Your task to perform on an android device: Go to privacy settings Image 0: 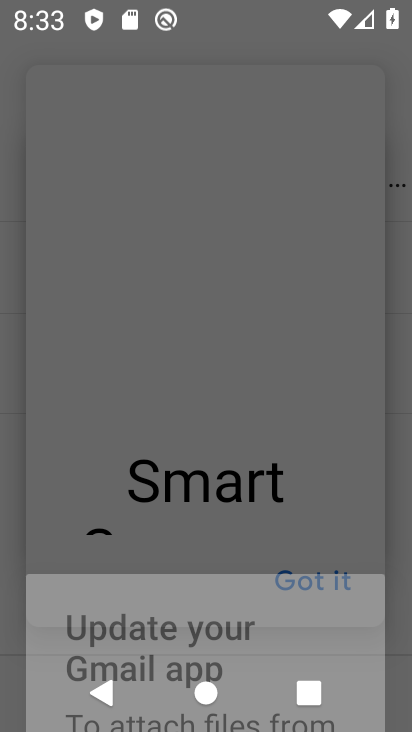
Step 0: press home button
Your task to perform on an android device: Go to privacy settings Image 1: 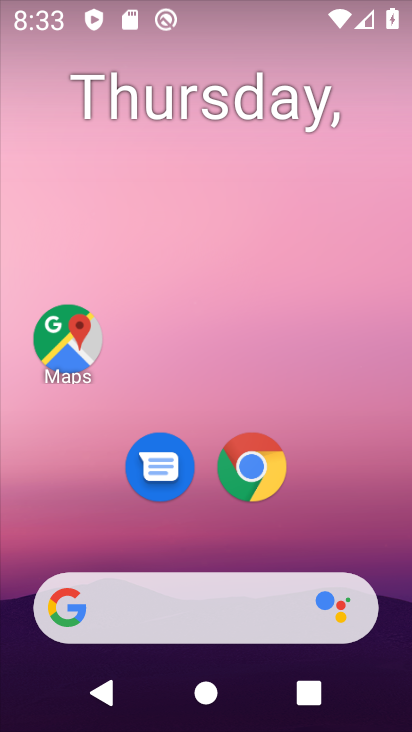
Step 1: drag from (310, 544) to (317, 30)
Your task to perform on an android device: Go to privacy settings Image 2: 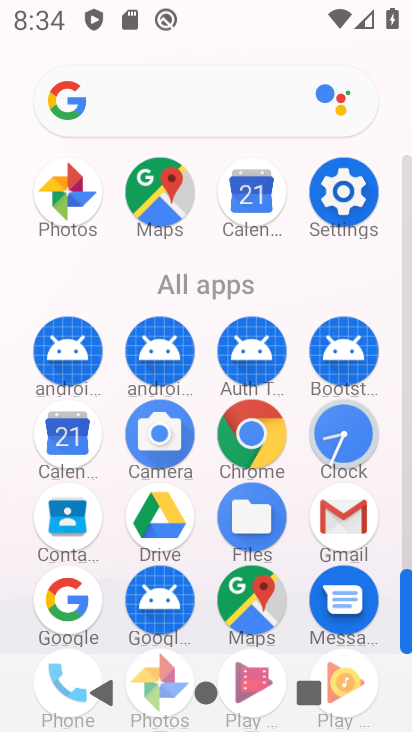
Step 2: click (249, 437)
Your task to perform on an android device: Go to privacy settings Image 3: 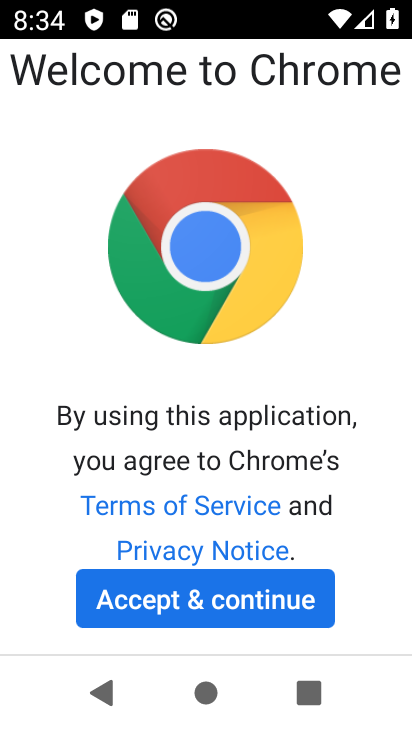
Step 3: click (204, 597)
Your task to perform on an android device: Go to privacy settings Image 4: 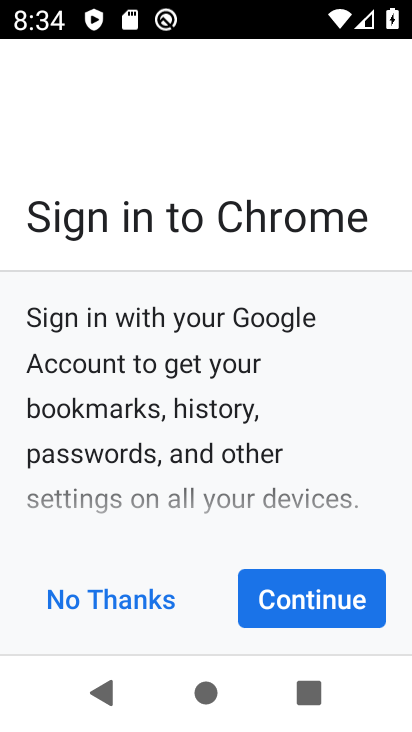
Step 4: click (267, 588)
Your task to perform on an android device: Go to privacy settings Image 5: 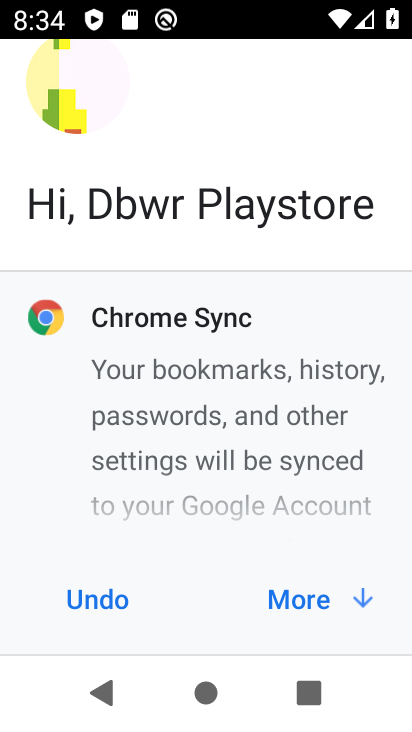
Step 5: click (271, 587)
Your task to perform on an android device: Go to privacy settings Image 6: 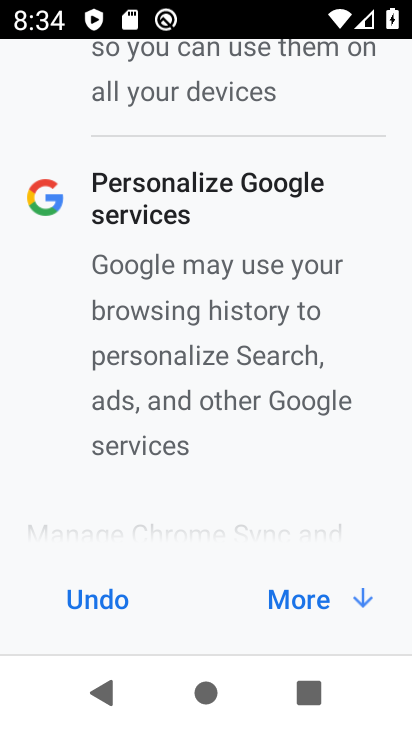
Step 6: click (271, 587)
Your task to perform on an android device: Go to privacy settings Image 7: 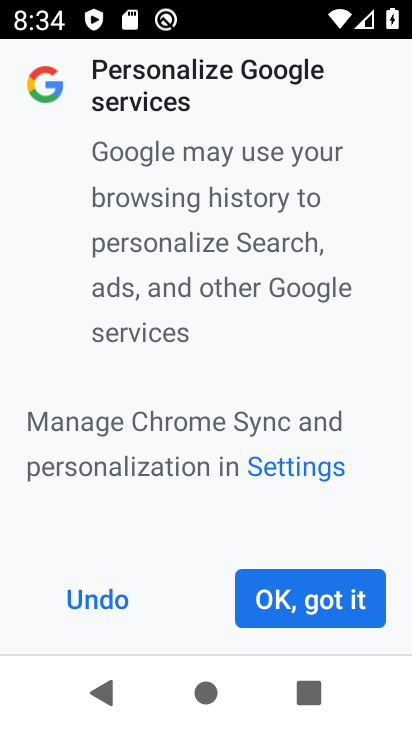
Step 7: click (271, 587)
Your task to perform on an android device: Go to privacy settings Image 8: 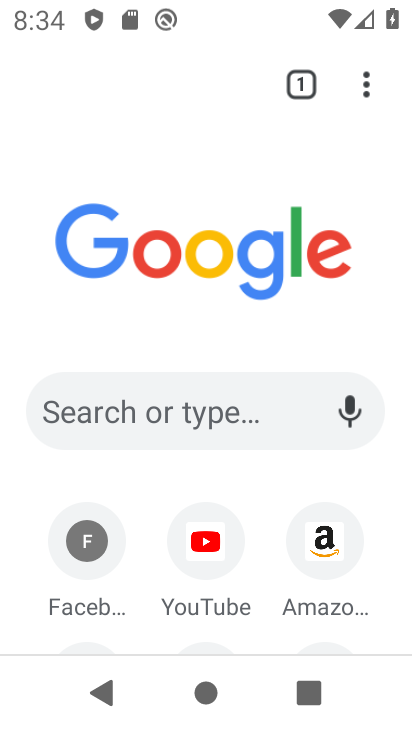
Step 8: click (364, 83)
Your task to perform on an android device: Go to privacy settings Image 9: 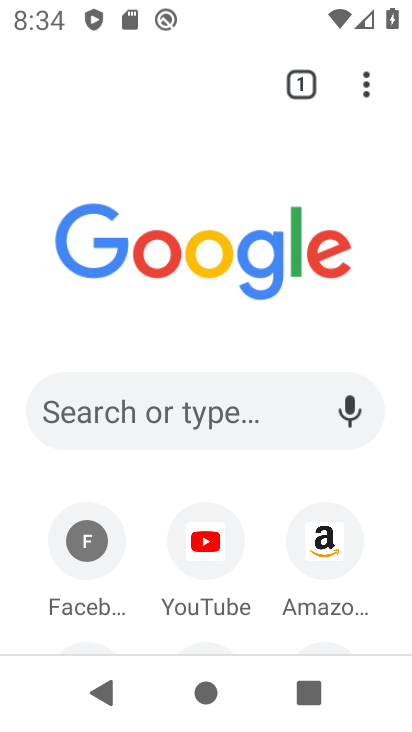
Step 9: click (364, 83)
Your task to perform on an android device: Go to privacy settings Image 10: 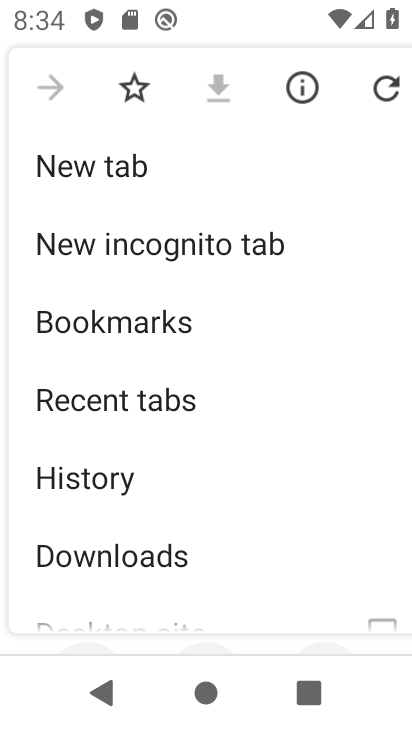
Step 10: drag from (118, 546) to (142, 413)
Your task to perform on an android device: Go to privacy settings Image 11: 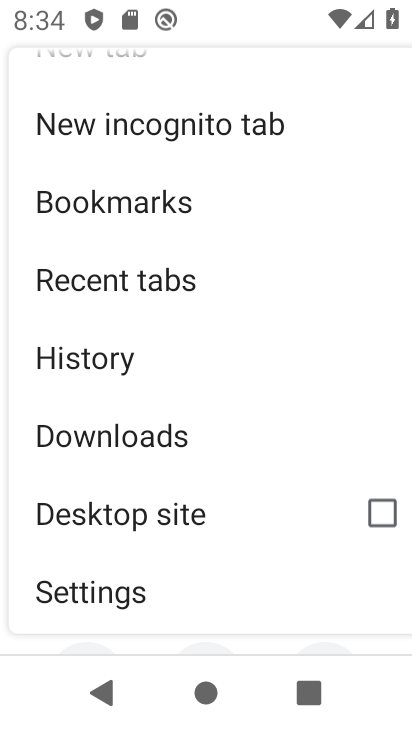
Step 11: click (147, 566)
Your task to perform on an android device: Go to privacy settings Image 12: 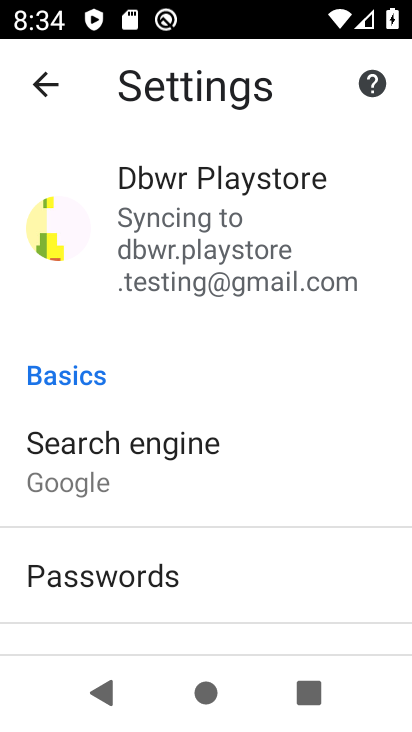
Step 12: drag from (158, 587) to (177, 492)
Your task to perform on an android device: Go to privacy settings Image 13: 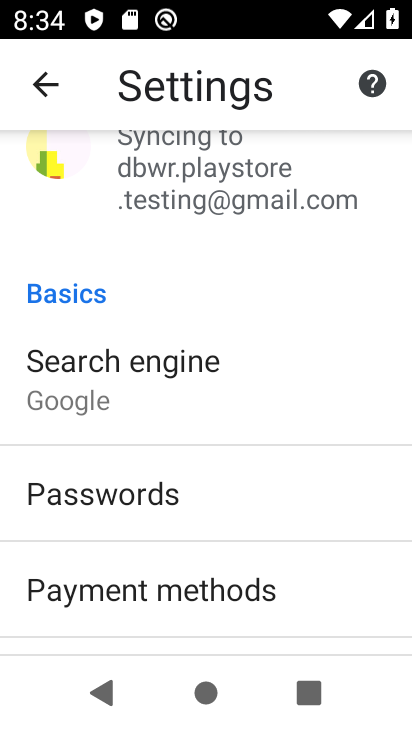
Step 13: drag from (163, 574) to (171, 473)
Your task to perform on an android device: Go to privacy settings Image 14: 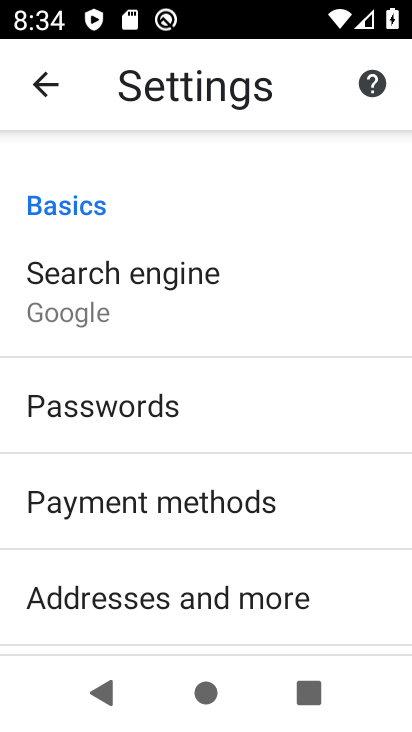
Step 14: drag from (165, 569) to (179, 497)
Your task to perform on an android device: Go to privacy settings Image 15: 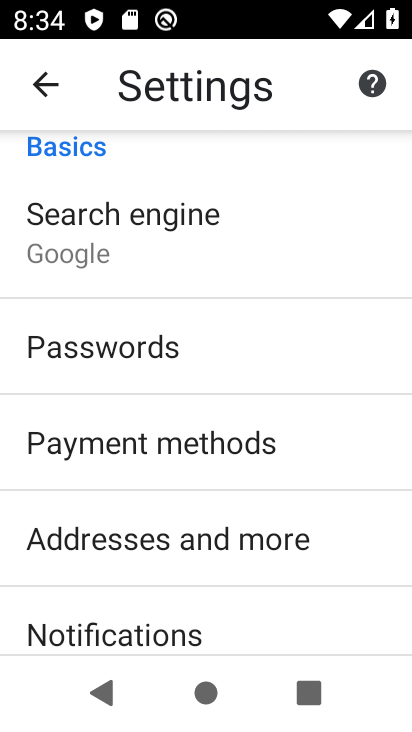
Step 15: drag from (359, 636) to (334, 543)
Your task to perform on an android device: Go to privacy settings Image 16: 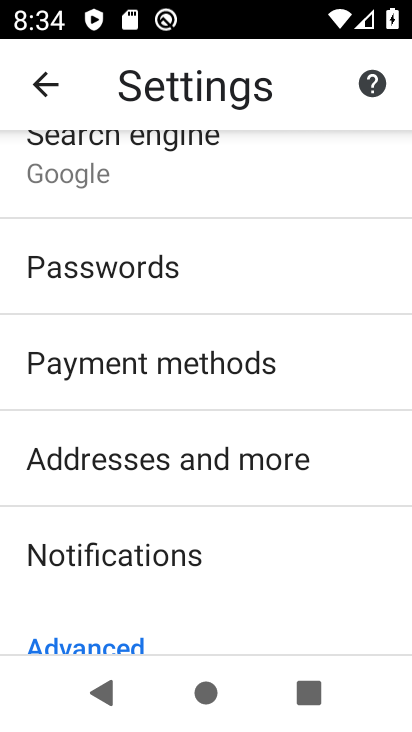
Step 16: drag from (295, 600) to (310, 489)
Your task to perform on an android device: Go to privacy settings Image 17: 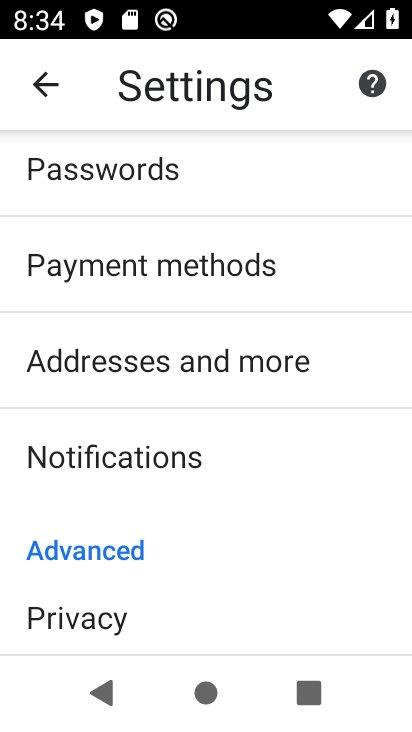
Step 17: click (216, 638)
Your task to perform on an android device: Go to privacy settings Image 18: 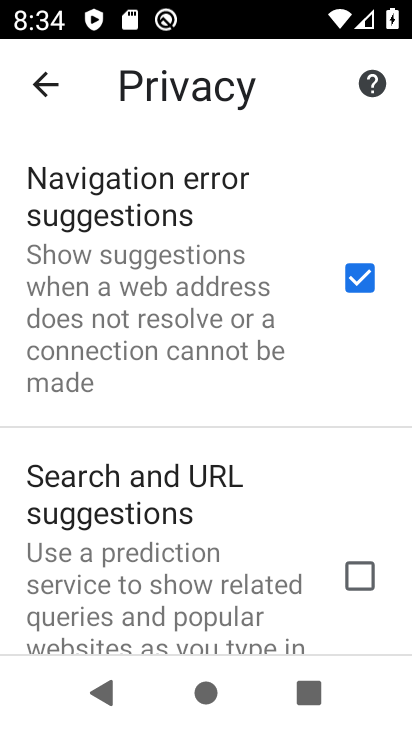
Step 18: task complete